Your task to perform on an android device: turn off improve location accuracy Image 0: 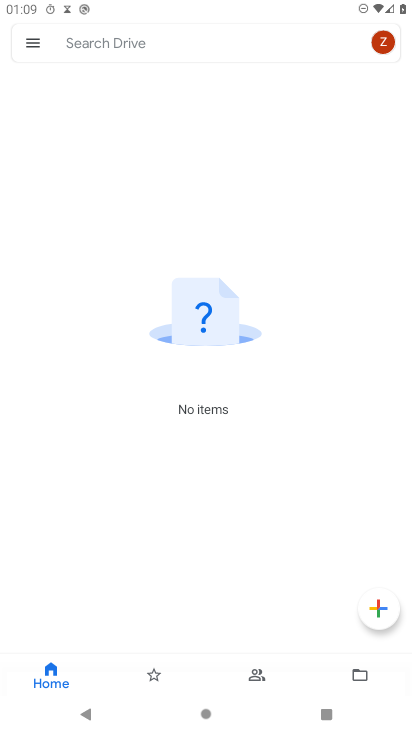
Step 0: press home button
Your task to perform on an android device: turn off improve location accuracy Image 1: 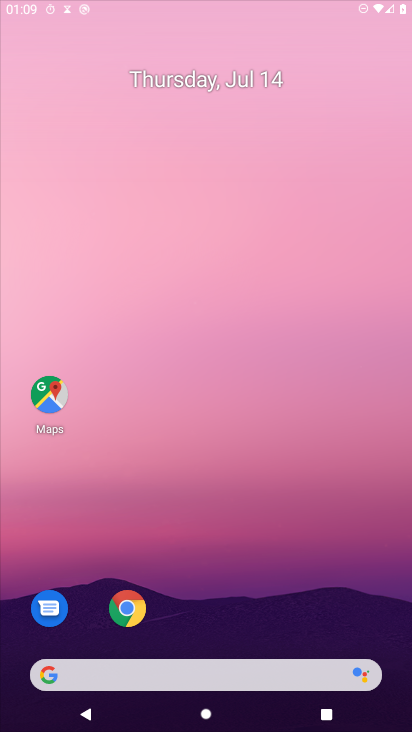
Step 1: drag from (275, 466) to (401, 458)
Your task to perform on an android device: turn off improve location accuracy Image 2: 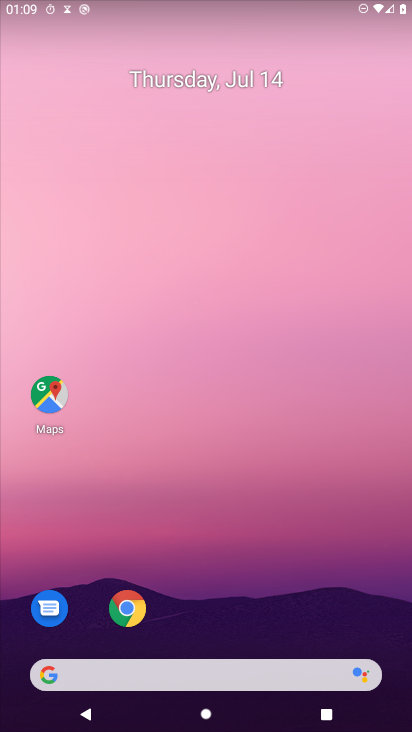
Step 2: drag from (195, 586) to (405, 399)
Your task to perform on an android device: turn off improve location accuracy Image 3: 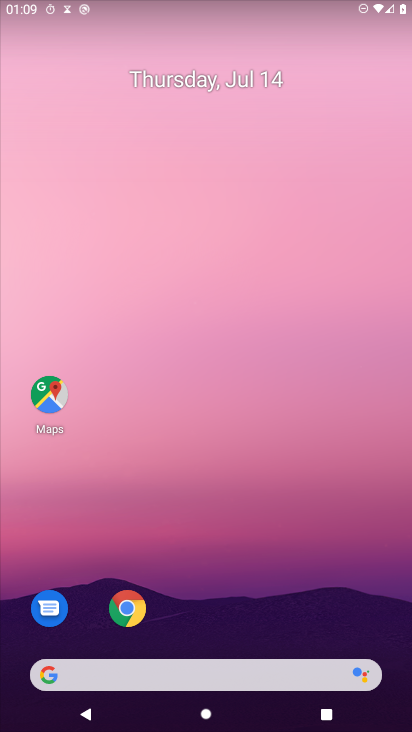
Step 3: drag from (230, 564) to (274, 2)
Your task to perform on an android device: turn off improve location accuracy Image 4: 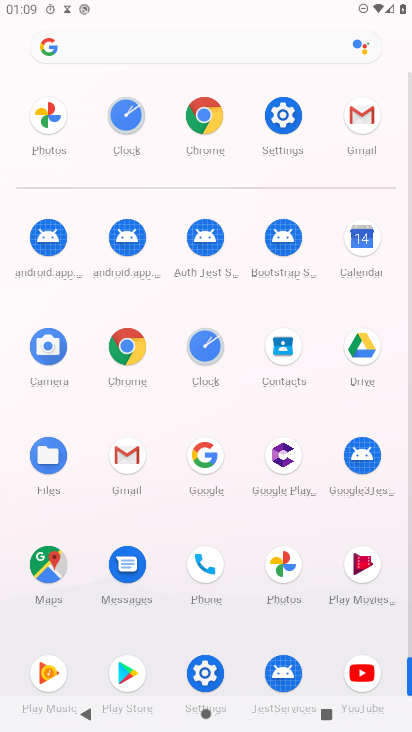
Step 4: click (296, 113)
Your task to perform on an android device: turn off improve location accuracy Image 5: 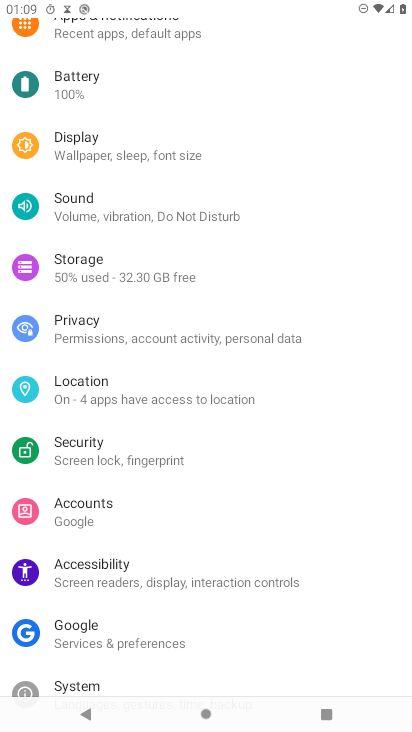
Step 5: click (110, 391)
Your task to perform on an android device: turn off improve location accuracy Image 6: 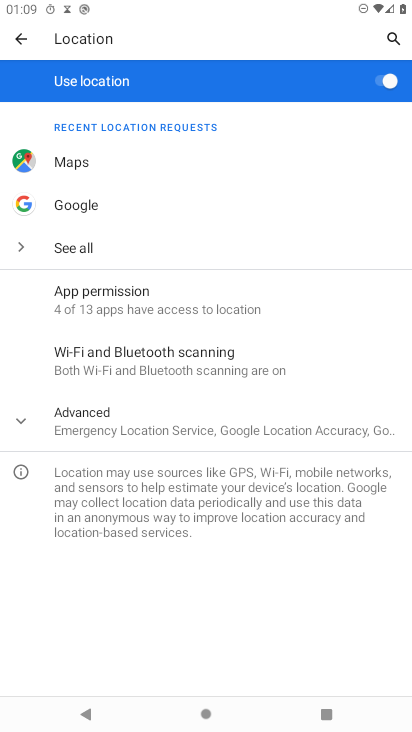
Step 6: click (23, 421)
Your task to perform on an android device: turn off improve location accuracy Image 7: 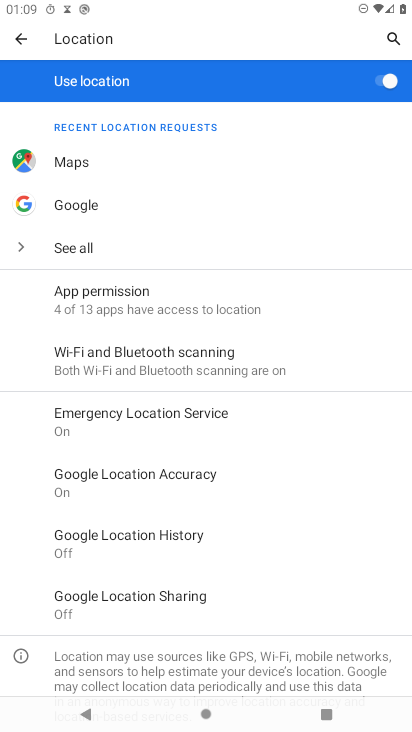
Step 7: click (72, 466)
Your task to perform on an android device: turn off improve location accuracy Image 8: 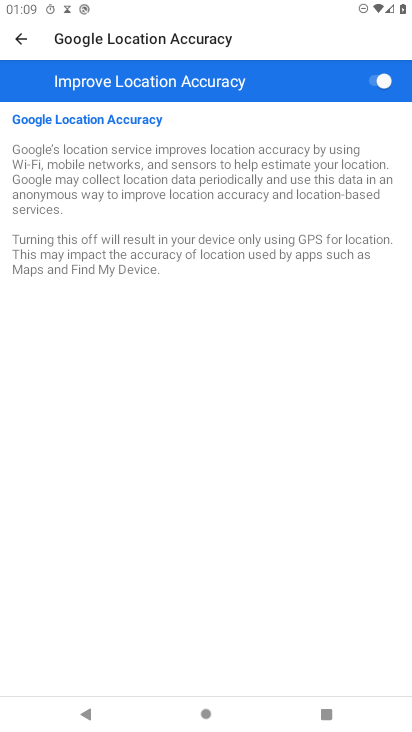
Step 8: click (376, 82)
Your task to perform on an android device: turn off improve location accuracy Image 9: 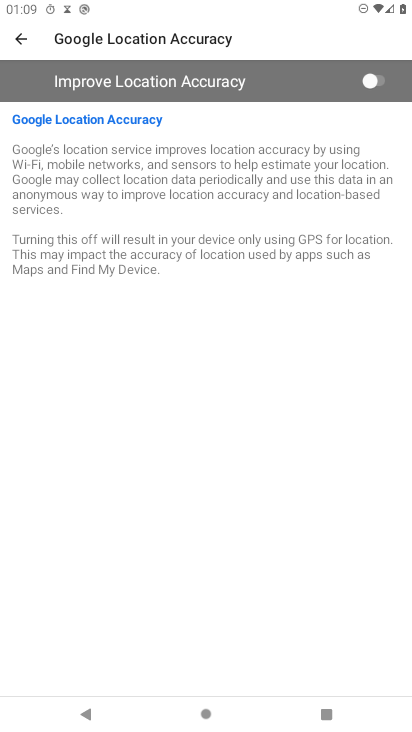
Step 9: task complete